Your task to perform on an android device: open app "eBay: The shopping marketplace" (install if not already installed) and go to login screen Image 0: 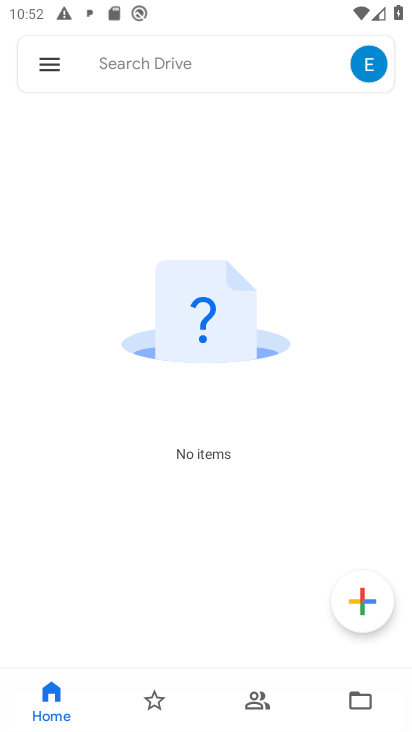
Step 0: press home button
Your task to perform on an android device: open app "eBay: The shopping marketplace" (install if not already installed) and go to login screen Image 1: 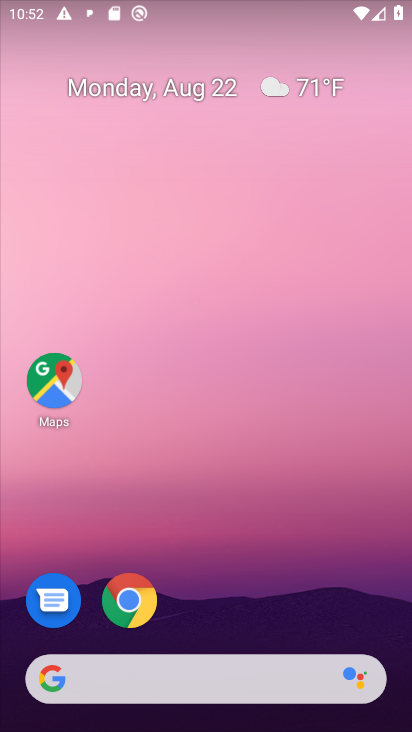
Step 1: drag from (236, 590) to (216, 211)
Your task to perform on an android device: open app "eBay: The shopping marketplace" (install if not already installed) and go to login screen Image 2: 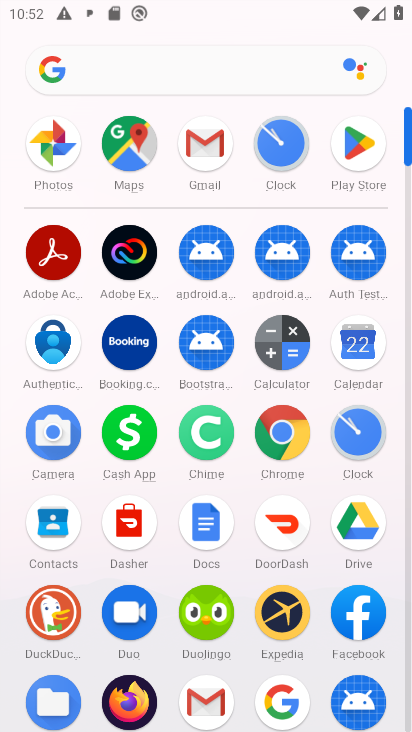
Step 2: click (357, 130)
Your task to perform on an android device: open app "eBay: The shopping marketplace" (install if not already installed) and go to login screen Image 3: 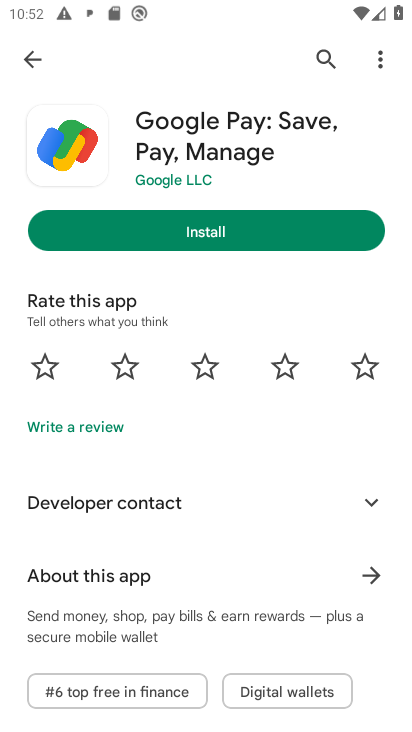
Step 3: click (328, 52)
Your task to perform on an android device: open app "eBay: The shopping marketplace" (install if not already installed) and go to login screen Image 4: 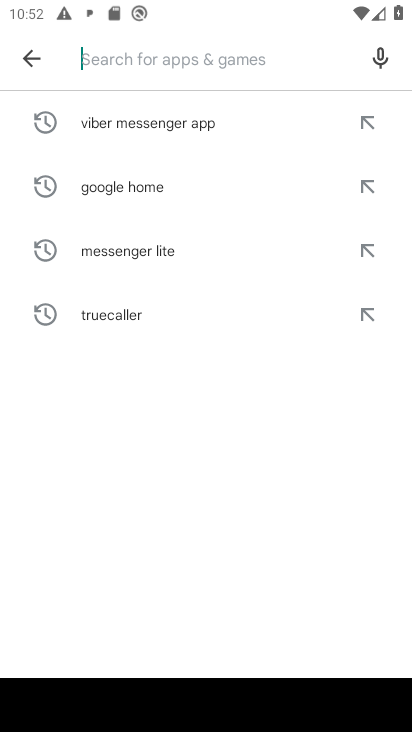
Step 4: type "eBay: The shopping marketplace"
Your task to perform on an android device: open app "eBay: The shopping marketplace" (install if not already installed) and go to login screen Image 5: 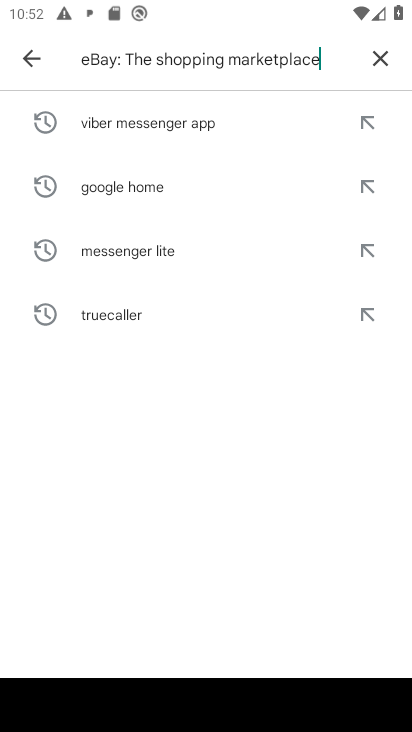
Step 5: type ""
Your task to perform on an android device: open app "eBay: The shopping marketplace" (install if not already installed) and go to login screen Image 6: 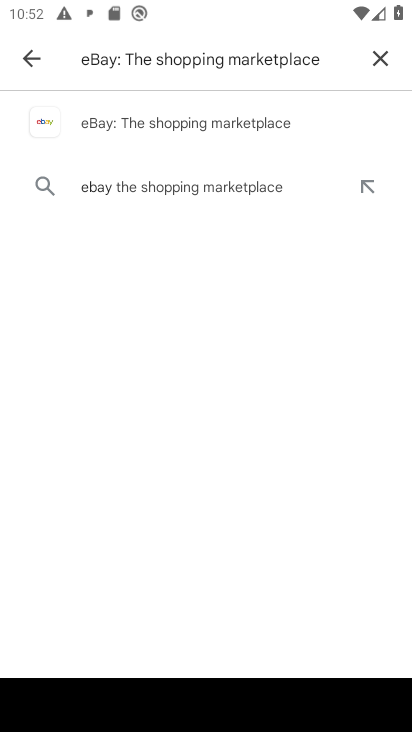
Step 6: click (223, 116)
Your task to perform on an android device: open app "eBay: The shopping marketplace" (install if not already installed) and go to login screen Image 7: 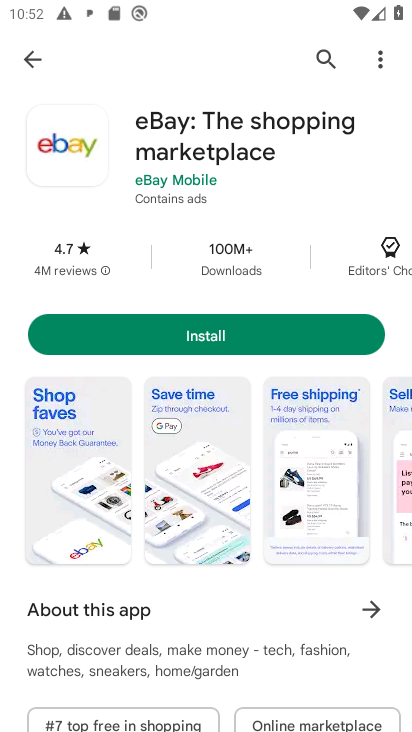
Step 7: click (234, 330)
Your task to perform on an android device: open app "eBay: The shopping marketplace" (install if not already installed) and go to login screen Image 8: 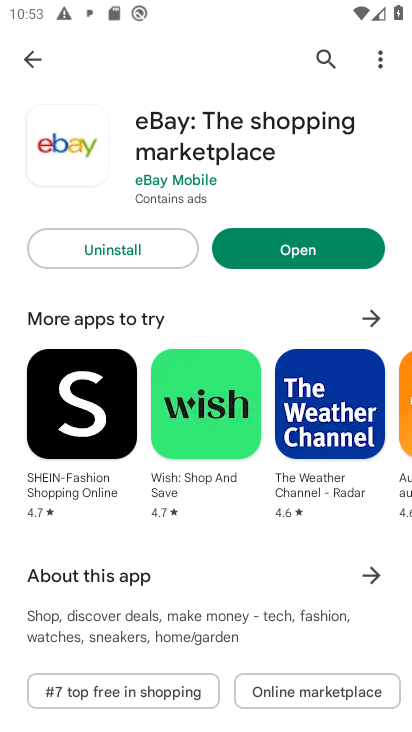
Step 8: click (312, 252)
Your task to perform on an android device: open app "eBay: The shopping marketplace" (install if not already installed) and go to login screen Image 9: 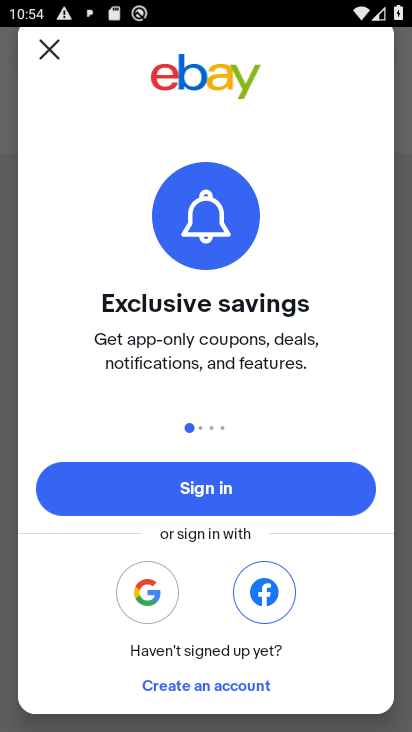
Step 9: task complete